Your task to perform on an android device: Is it going to rain tomorrow? Image 0: 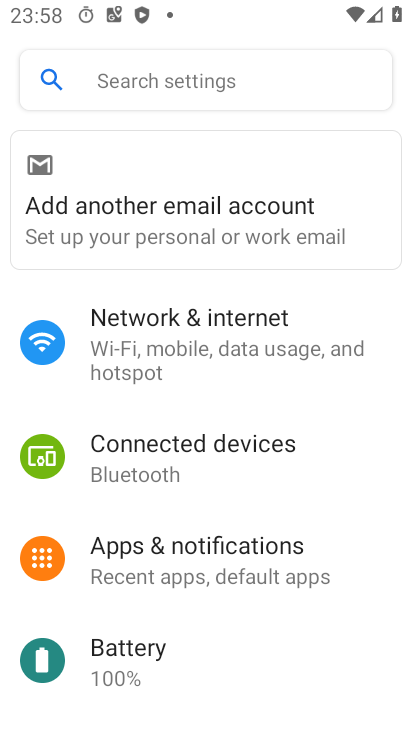
Step 0: press home button
Your task to perform on an android device: Is it going to rain tomorrow? Image 1: 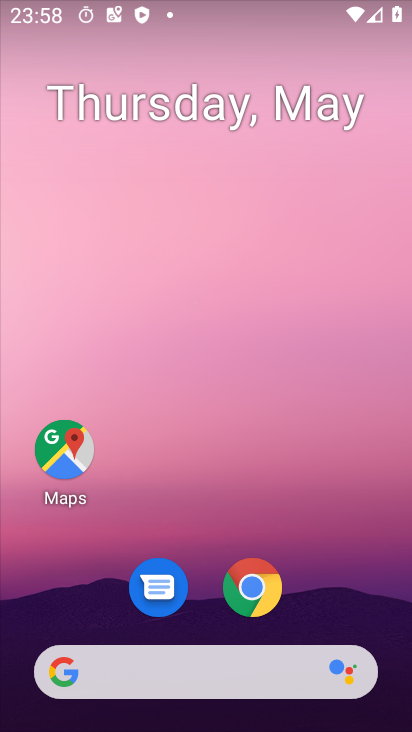
Step 1: click (127, 679)
Your task to perform on an android device: Is it going to rain tomorrow? Image 2: 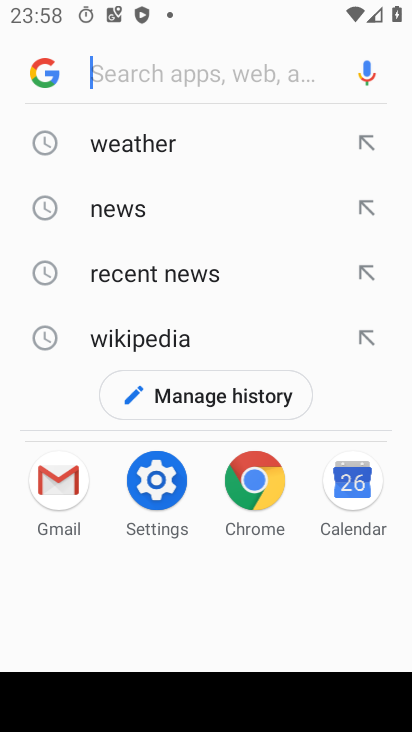
Step 2: click (128, 154)
Your task to perform on an android device: Is it going to rain tomorrow? Image 3: 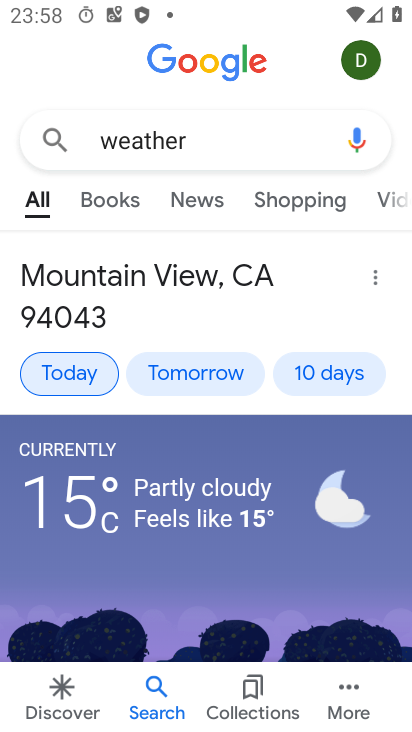
Step 3: click (204, 362)
Your task to perform on an android device: Is it going to rain tomorrow? Image 4: 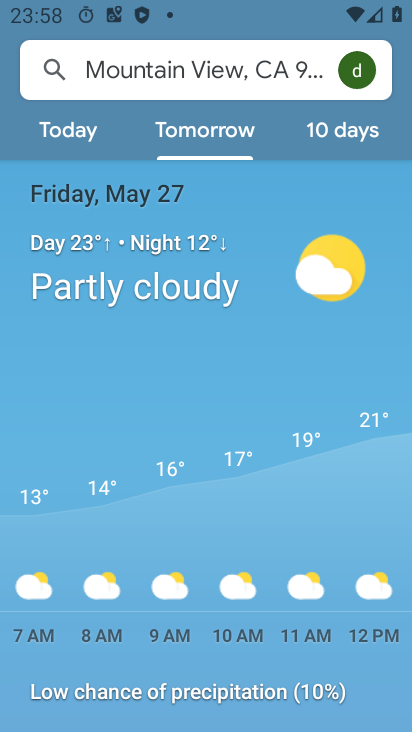
Step 4: task complete